Your task to perform on an android device: find snoozed emails in the gmail app Image 0: 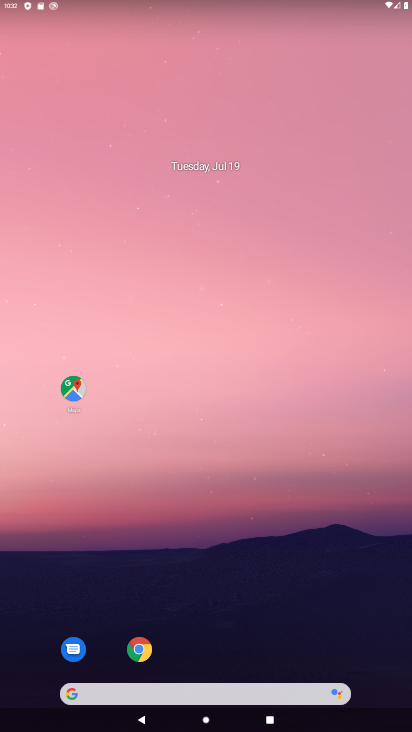
Step 0: drag from (226, 662) to (308, 58)
Your task to perform on an android device: find snoozed emails in the gmail app Image 1: 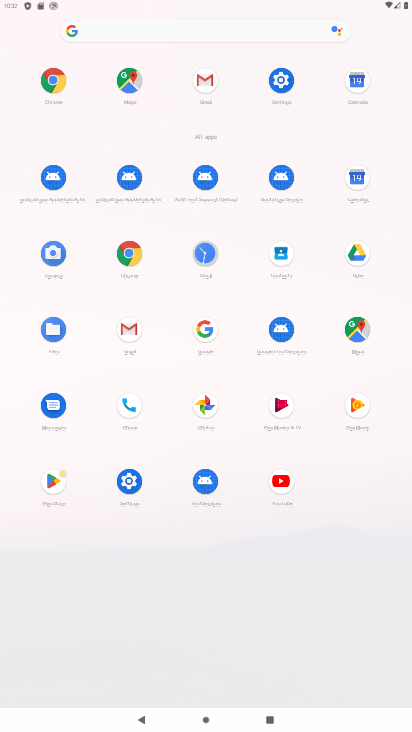
Step 1: click (124, 333)
Your task to perform on an android device: find snoozed emails in the gmail app Image 2: 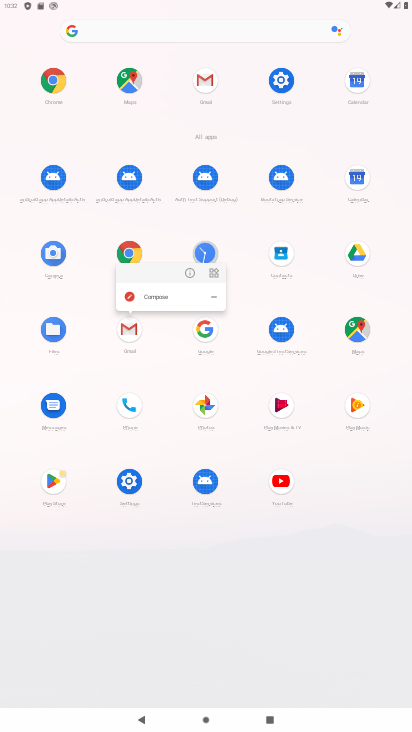
Step 2: click (127, 329)
Your task to perform on an android device: find snoozed emails in the gmail app Image 3: 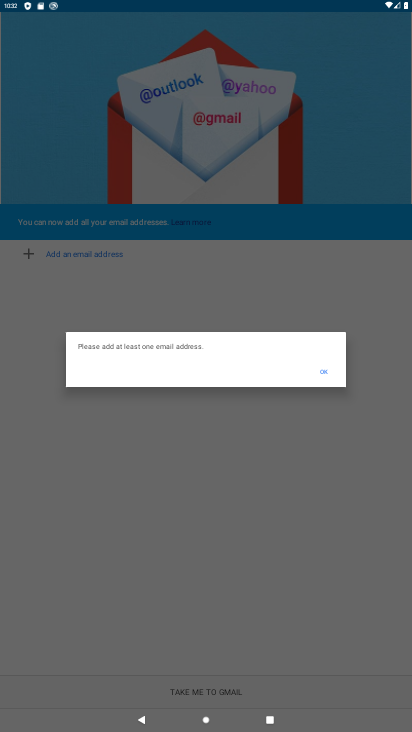
Step 3: task complete